Your task to perform on an android device: snooze an email in the gmail app Image 0: 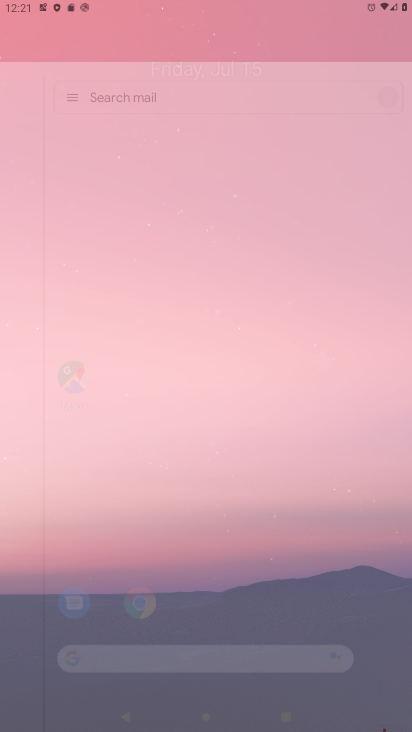
Step 0: press home button
Your task to perform on an android device: snooze an email in the gmail app Image 1: 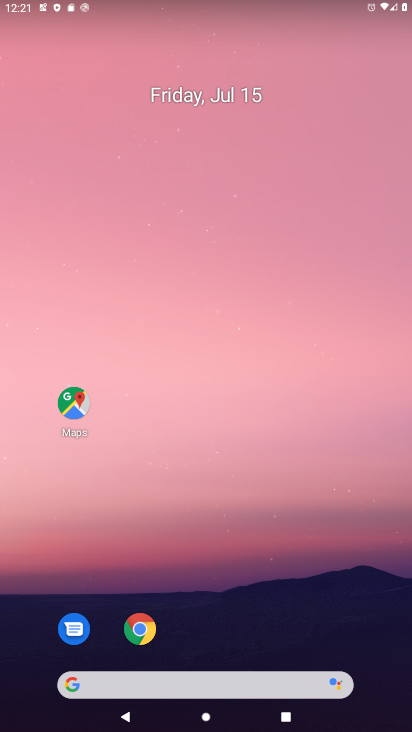
Step 1: drag from (240, 635) to (283, 63)
Your task to perform on an android device: snooze an email in the gmail app Image 2: 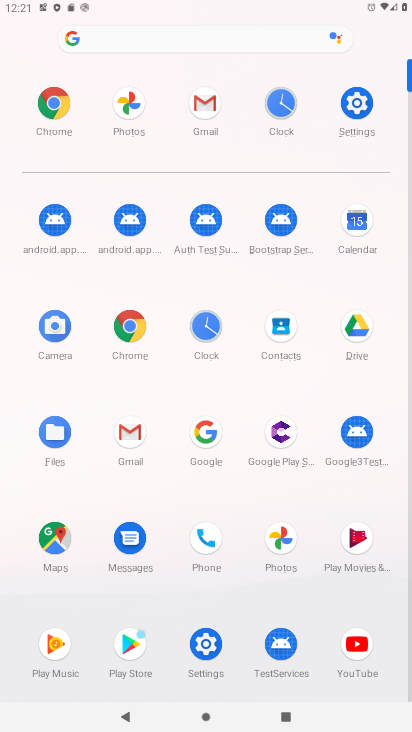
Step 2: click (209, 103)
Your task to perform on an android device: snooze an email in the gmail app Image 3: 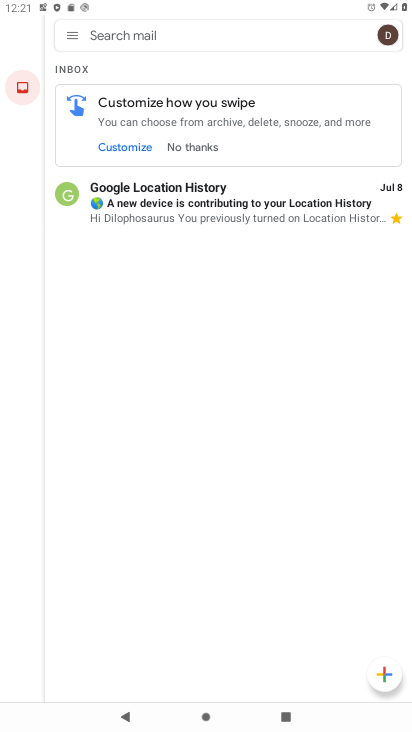
Step 3: click (215, 202)
Your task to perform on an android device: snooze an email in the gmail app Image 4: 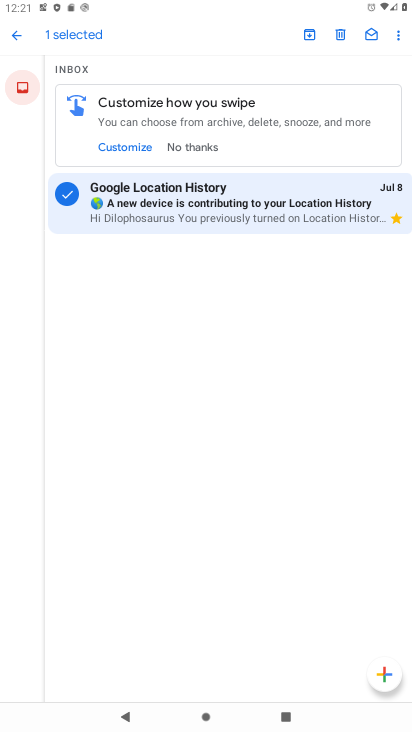
Step 4: click (402, 30)
Your task to perform on an android device: snooze an email in the gmail app Image 5: 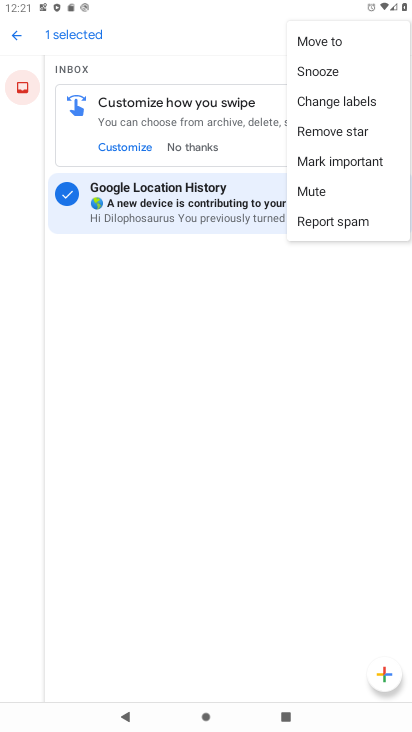
Step 5: click (314, 68)
Your task to perform on an android device: snooze an email in the gmail app Image 6: 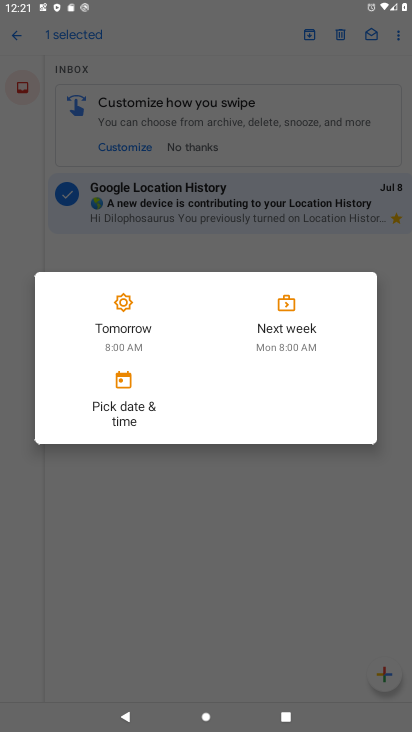
Step 6: click (286, 306)
Your task to perform on an android device: snooze an email in the gmail app Image 7: 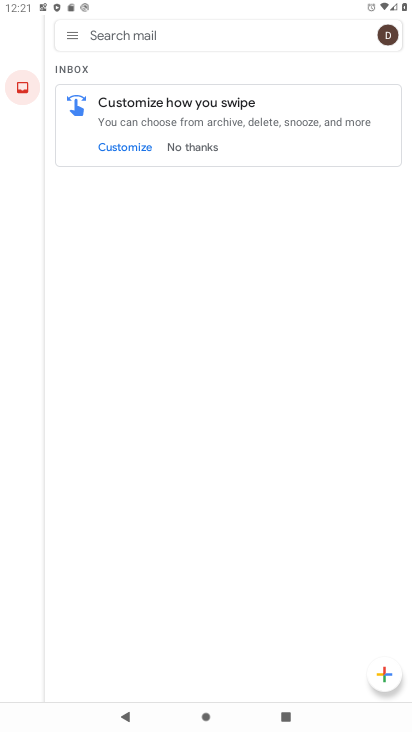
Step 7: task complete